Your task to perform on an android device: Open location settings Image 0: 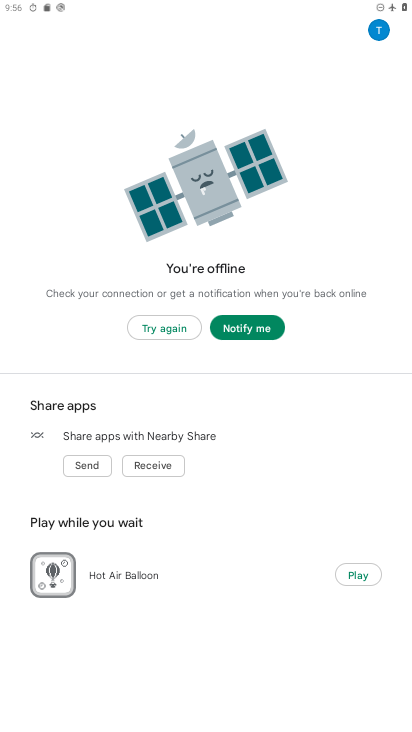
Step 0: press home button
Your task to perform on an android device: Open location settings Image 1: 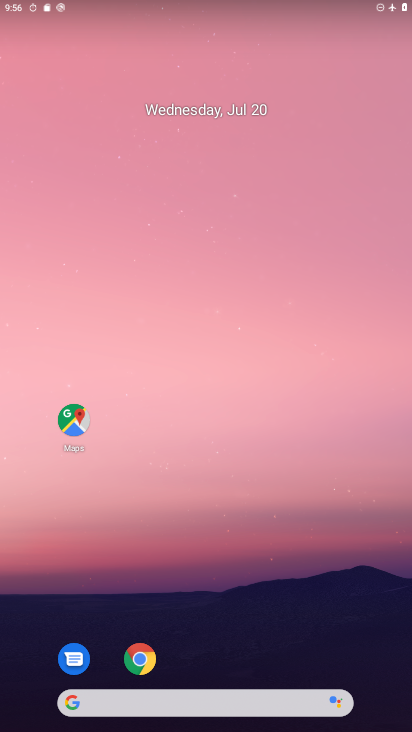
Step 1: drag from (285, 628) to (177, 249)
Your task to perform on an android device: Open location settings Image 2: 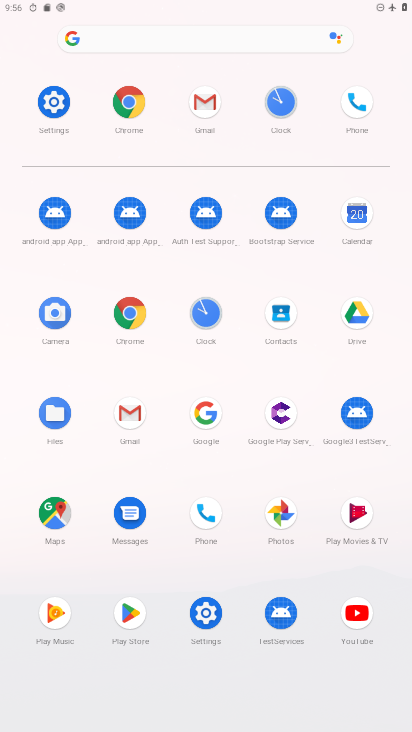
Step 2: click (48, 93)
Your task to perform on an android device: Open location settings Image 3: 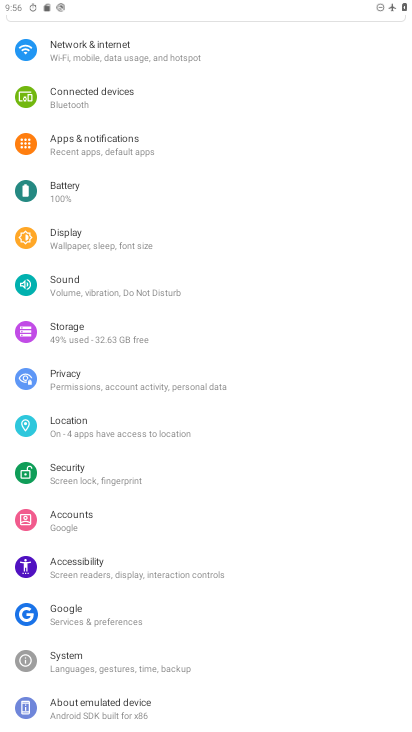
Step 3: click (105, 427)
Your task to perform on an android device: Open location settings Image 4: 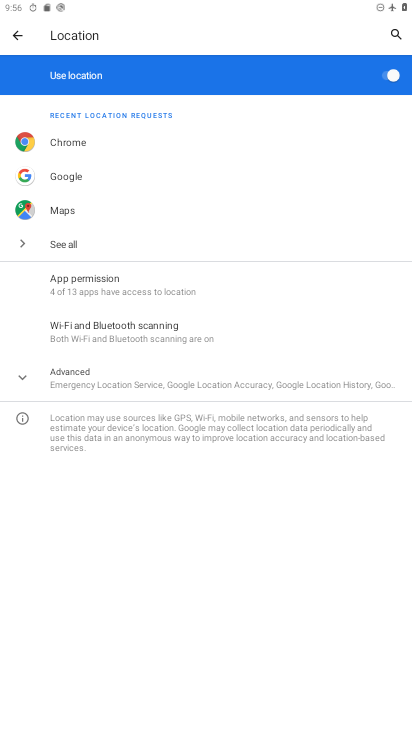
Step 4: task complete